Your task to perform on an android device: Open calendar and show me the second week of next month Image 0: 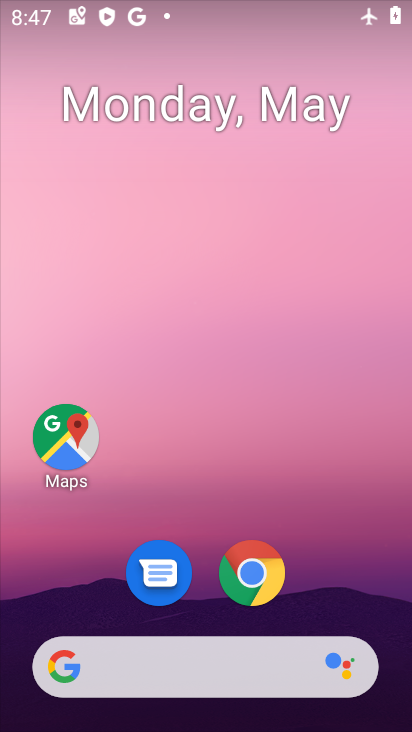
Step 0: drag from (203, 598) to (218, 253)
Your task to perform on an android device: Open calendar and show me the second week of next month Image 1: 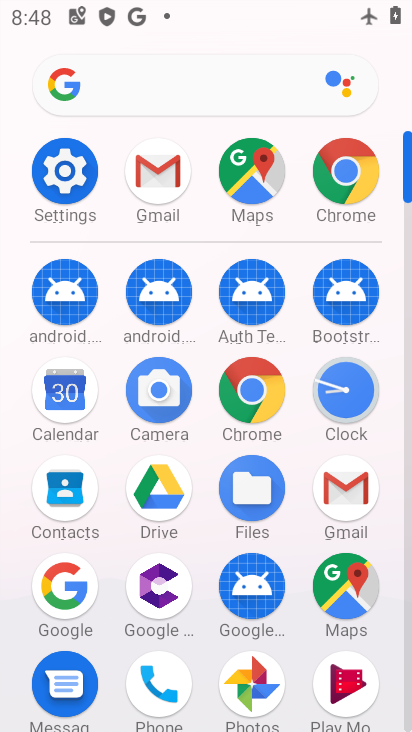
Step 1: click (56, 409)
Your task to perform on an android device: Open calendar and show me the second week of next month Image 2: 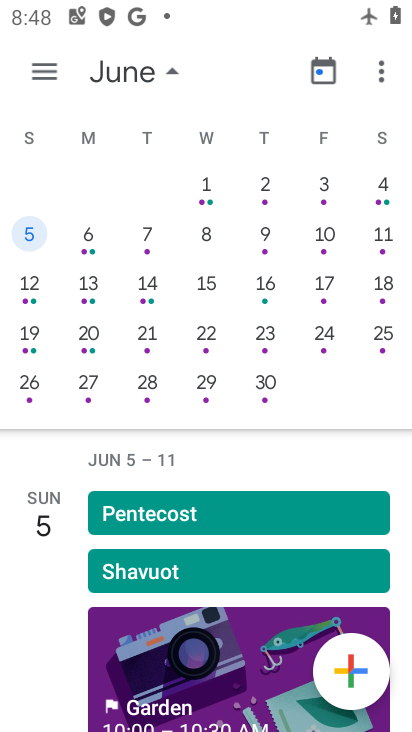
Step 2: task complete